Your task to perform on an android device: When is my next appointment? Image 0: 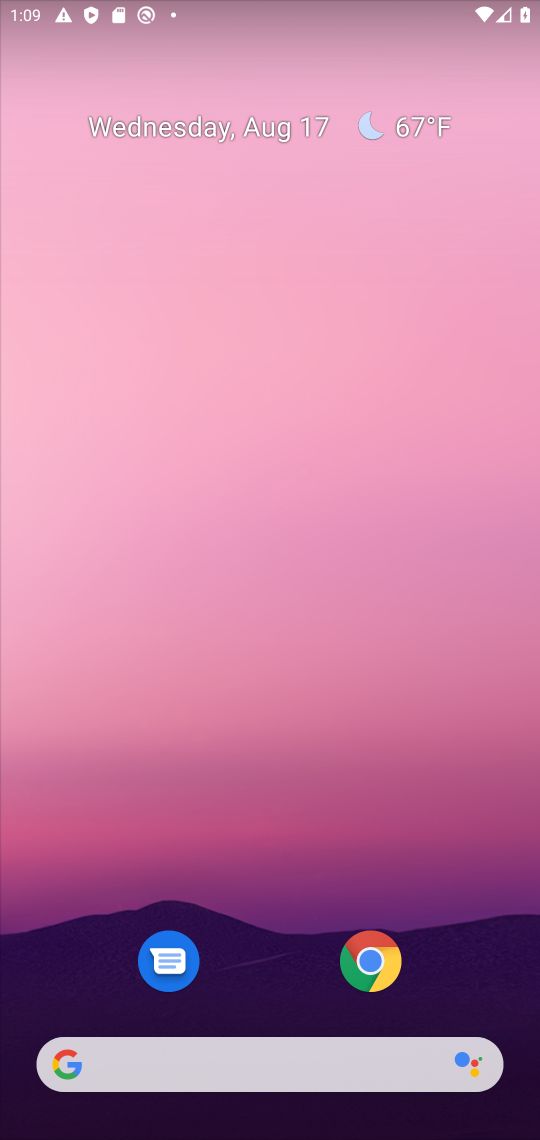
Step 0: drag from (368, 1047) to (384, 18)
Your task to perform on an android device: When is my next appointment? Image 1: 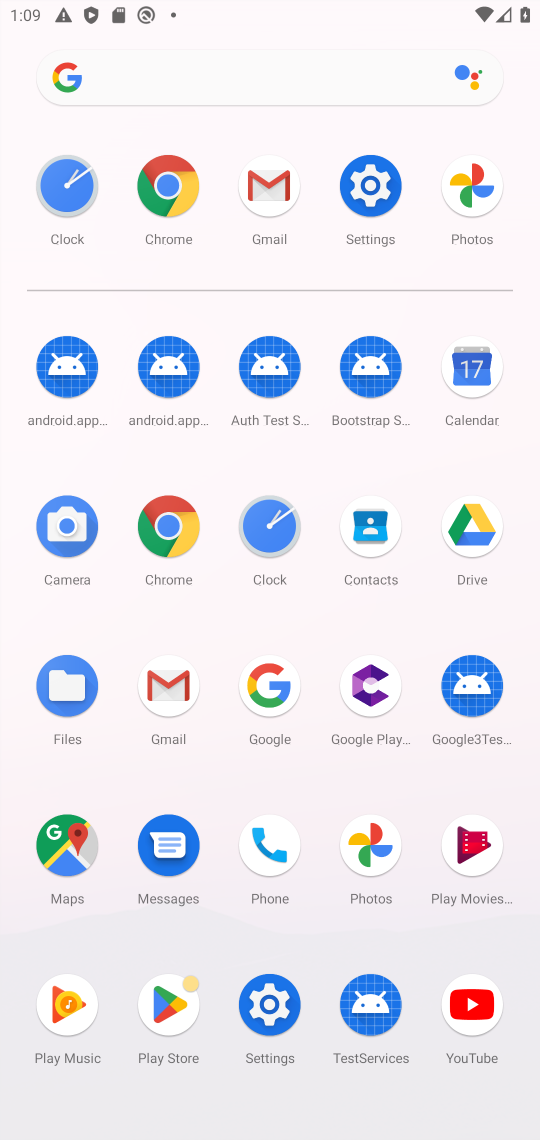
Step 1: click (491, 386)
Your task to perform on an android device: When is my next appointment? Image 2: 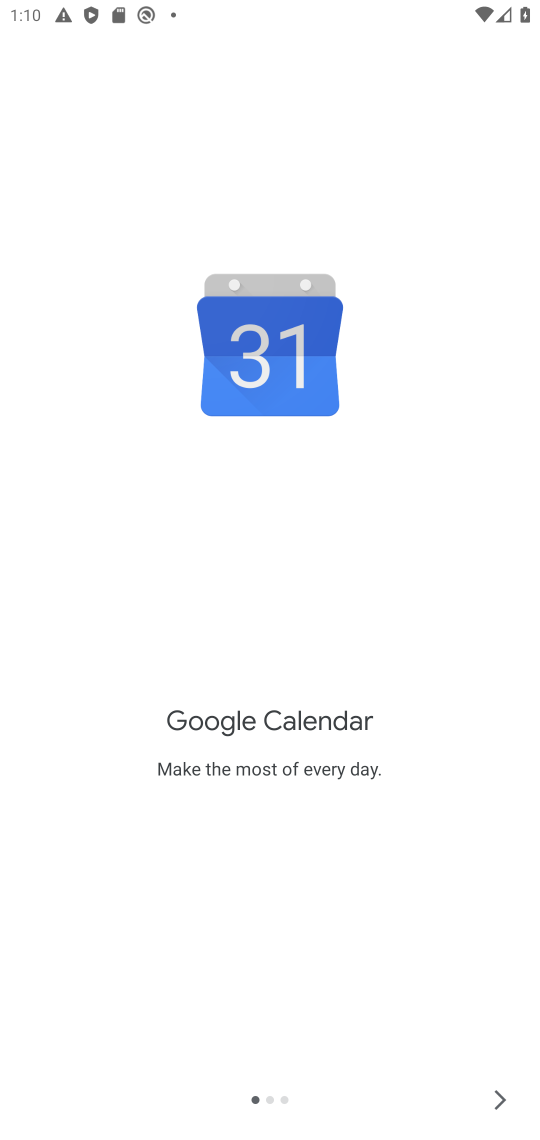
Step 2: click (494, 1090)
Your task to perform on an android device: When is my next appointment? Image 3: 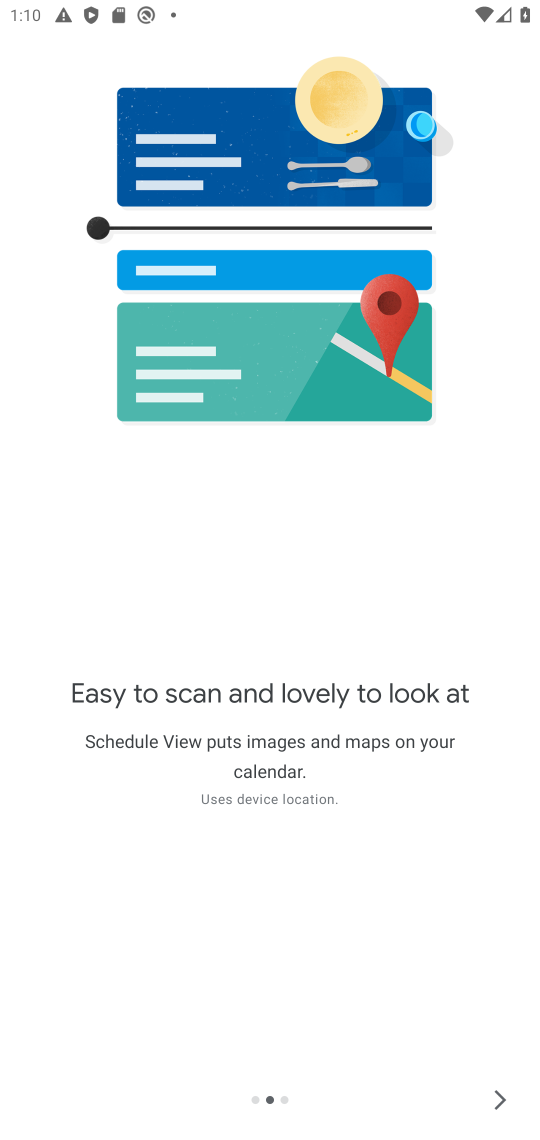
Step 3: click (488, 1095)
Your task to perform on an android device: When is my next appointment? Image 4: 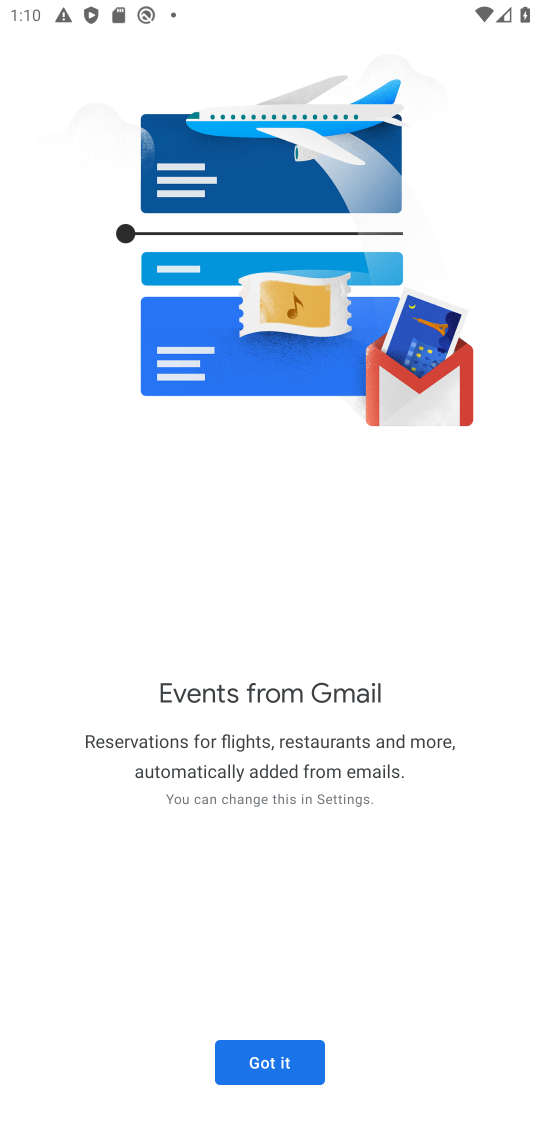
Step 4: click (292, 1059)
Your task to perform on an android device: When is my next appointment? Image 5: 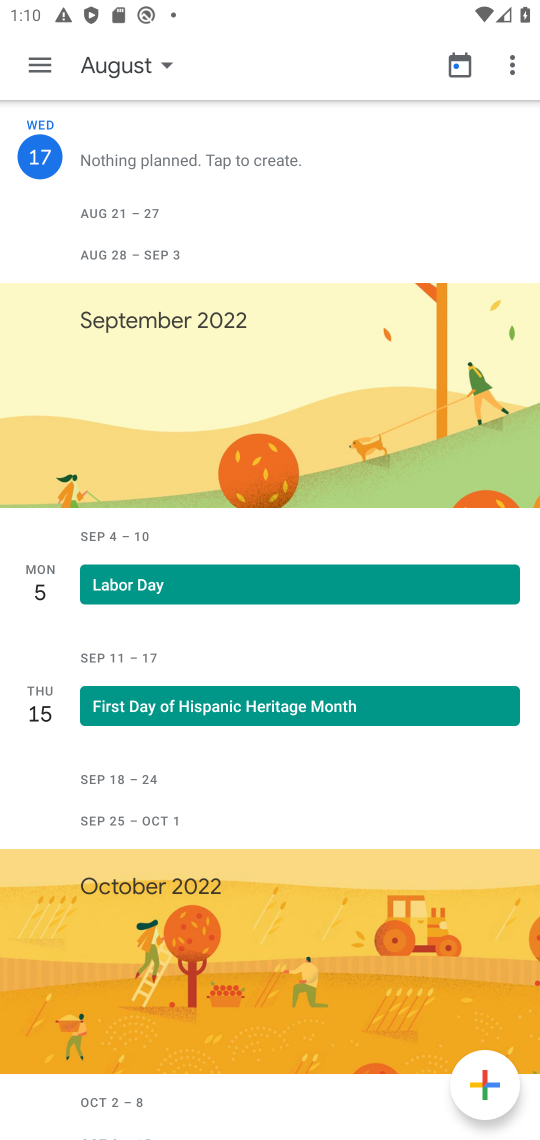
Step 5: click (34, 66)
Your task to perform on an android device: When is my next appointment? Image 6: 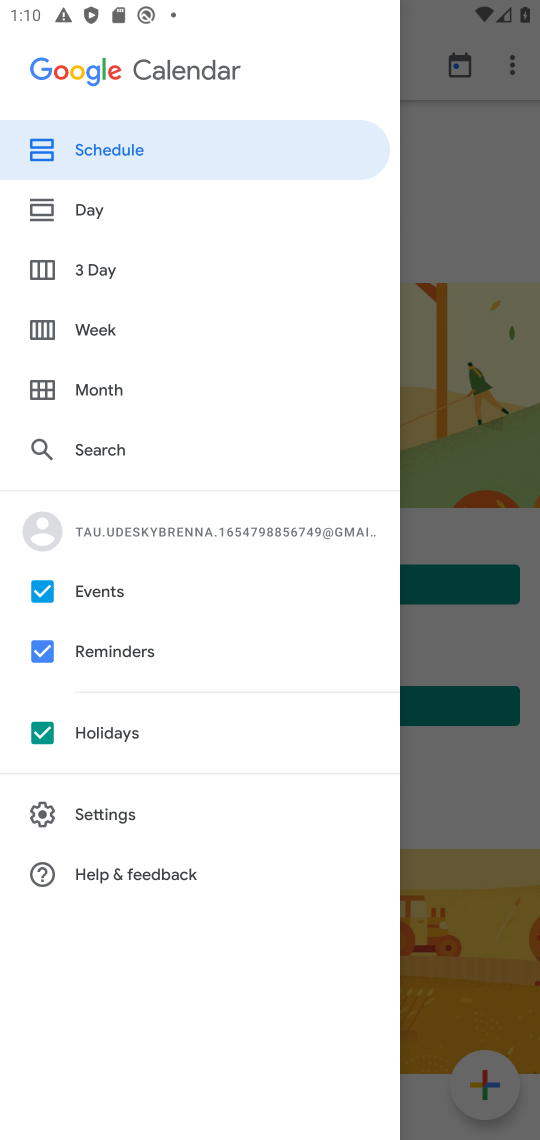
Step 6: click (52, 733)
Your task to perform on an android device: When is my next appointment? Image 7: 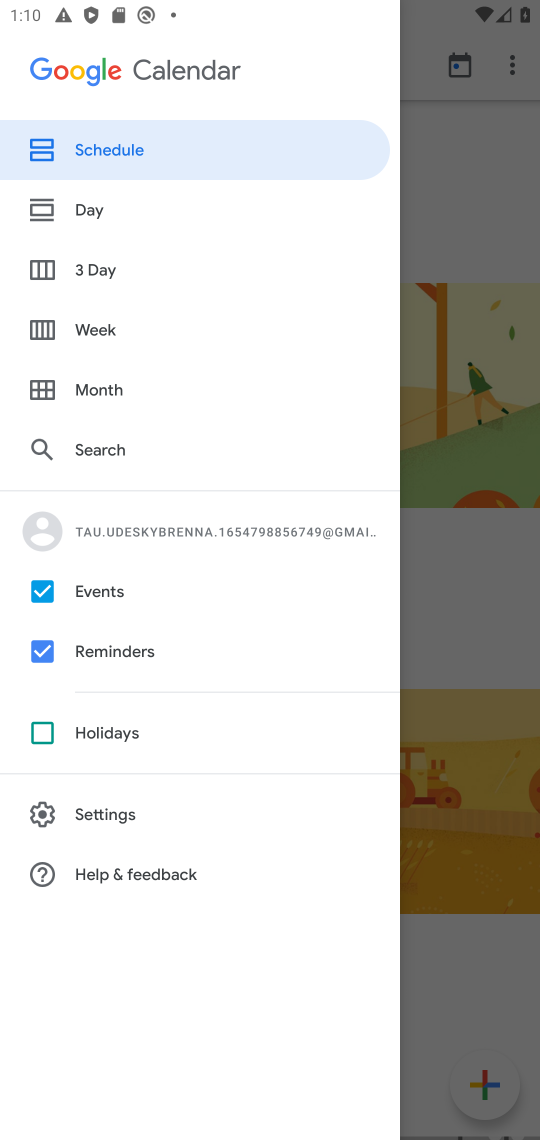
Step 7: click (477, 399)
Your task to perform on an android device: When is my next appointment? Image 8: 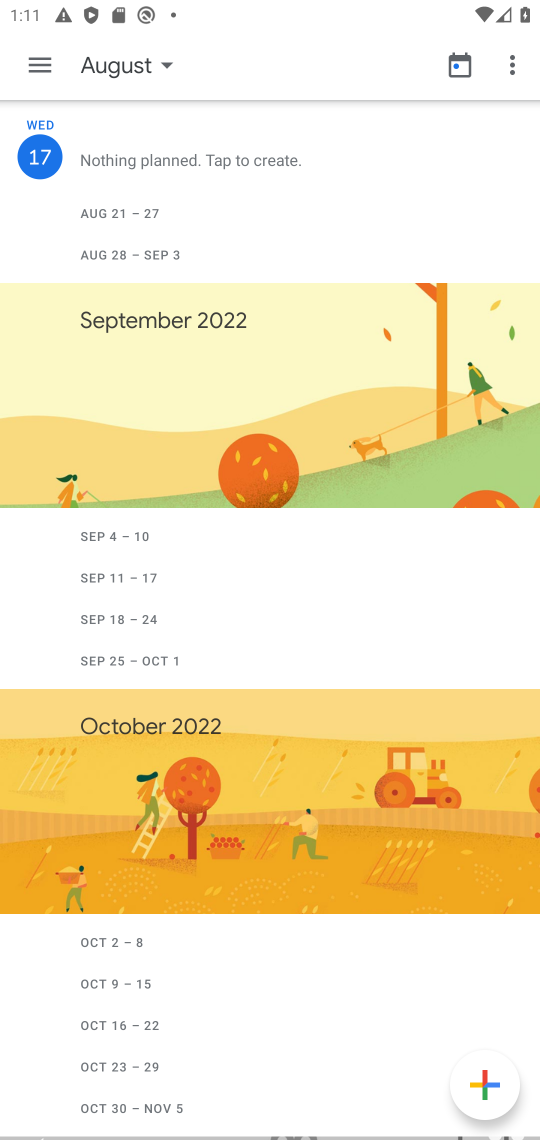
Step 8: task complete